Your task to perform on an android device: change the clock style Image 0: 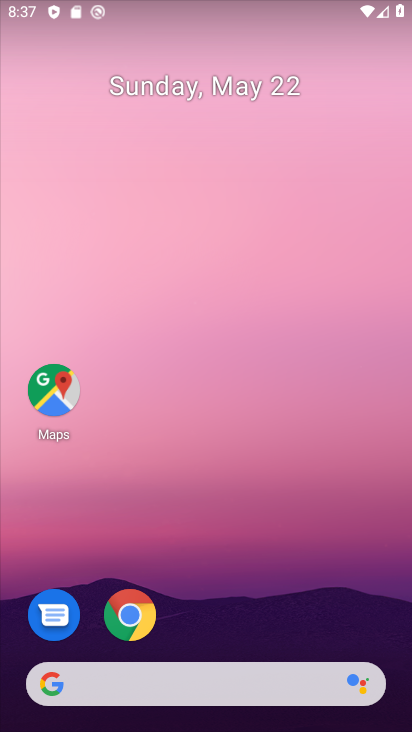
Step 0: drag from (297, 180) to (295, 144)
Your task to perform on an android device: change the clock style Image 1: 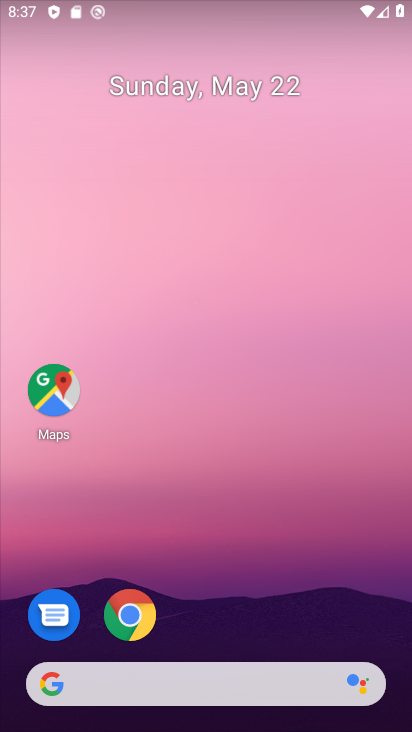
Step 1: drag from (260, 580) to (244, 54)
Your task to perform on an android device: change the clock style Image 2: 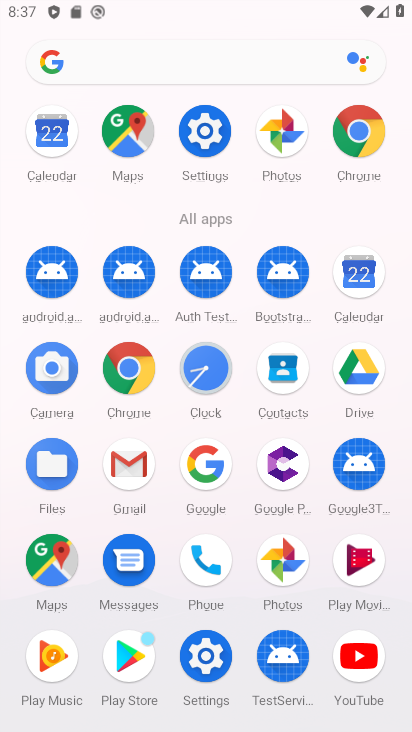
Step 2: click (193, 365)
Your task to perform on an android device: change the clock style Image 3: 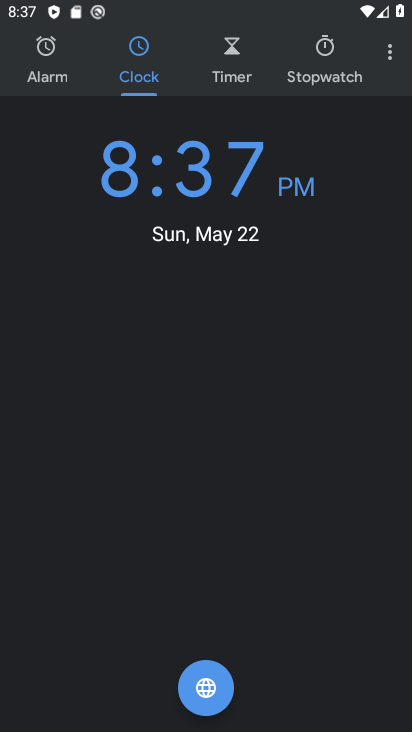
Step 3: click (388, 47)
Your task to perform on an android device: change the clock style Image 4: 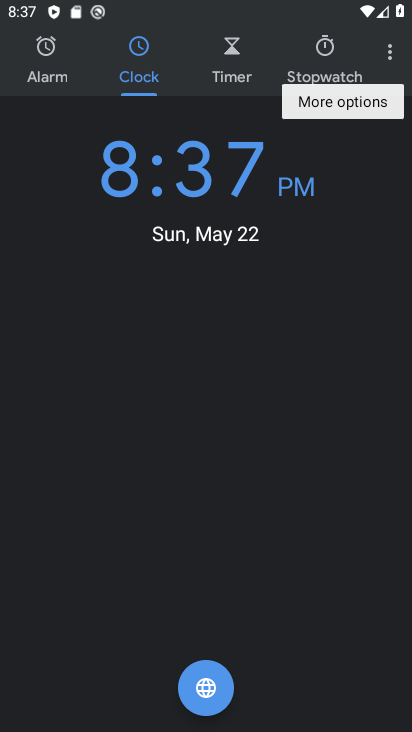
Step 4: click (383, 49)
Your task to perform on an android device: change the clock style Image 5: 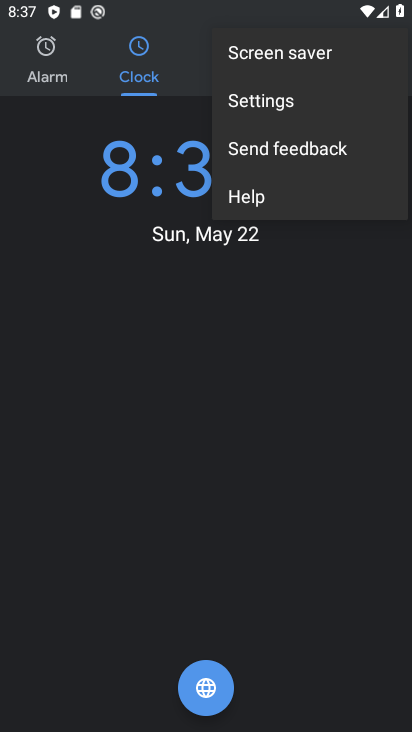
Step 5: click (299, 89)
Your task to perform on an android device: change the clock style Image 6: 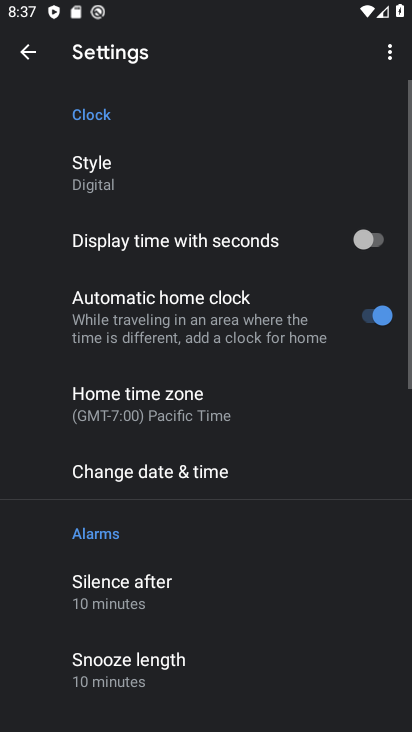
Step 6: click (140, 190)
Your task to perform on an android device: change the clock style Image 7: 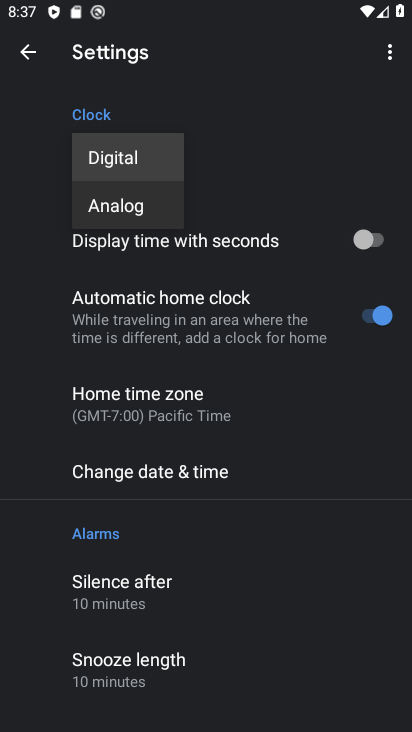
Step 7: click (118, 211)
Your task to perform on an android device: change the clock style Image 8: 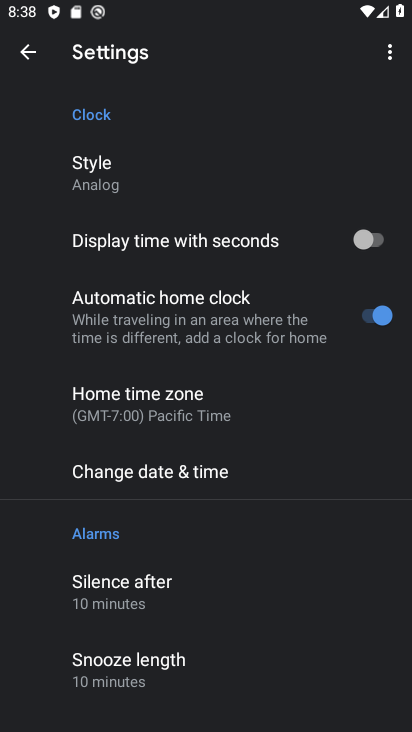
Step 8: task complete